Your task to perform on an android device: toggle notifications settings in the gmail app Image 0: 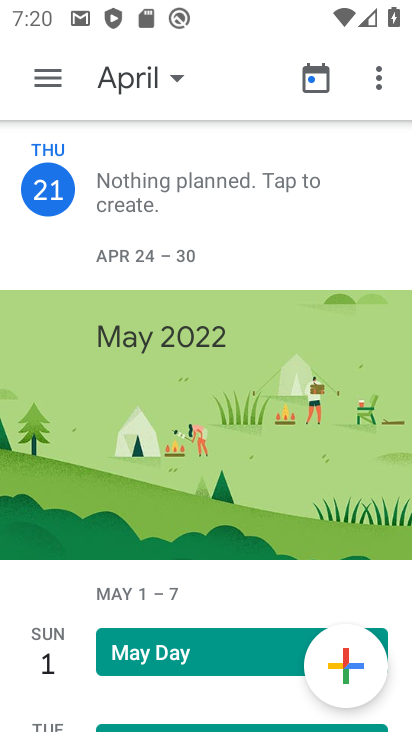
Step 0: press home button
Your task to perform on an android device: toggle notifications settings in the gmail app Image 1: 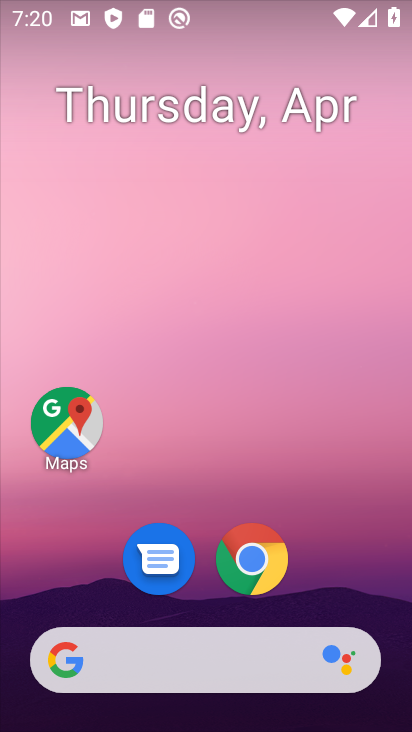
Step 1: drag from (267, 717) to (228, 91)
Your task to perform on an android device: toggle notifications settings in the gmail app Image 2: 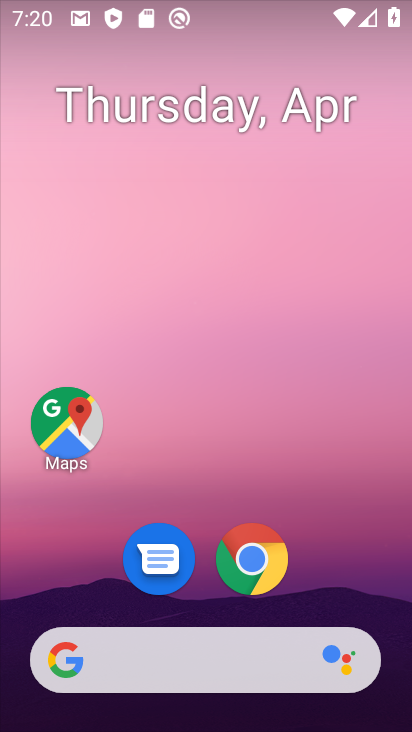
Step 2: drag from (263, 713) to (266, 34)
Your task to perform on an android device: toggle notifications settings in the gmail app Image 3: 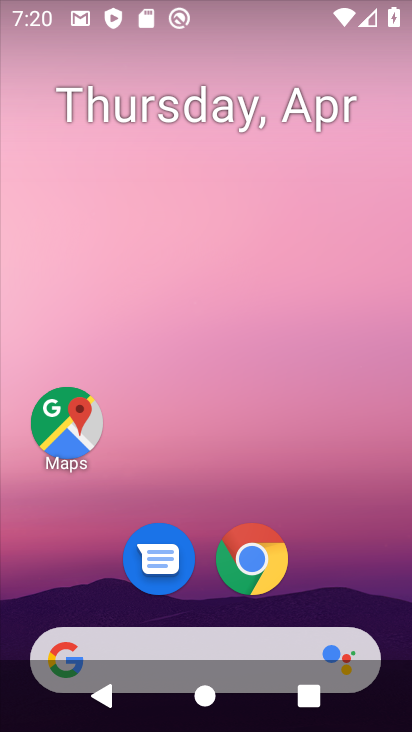
Step 3: drag from (222, 474) to (275, 10)
Your task to perform on an android device: toggle notifications settings in the gmail app Image 4: 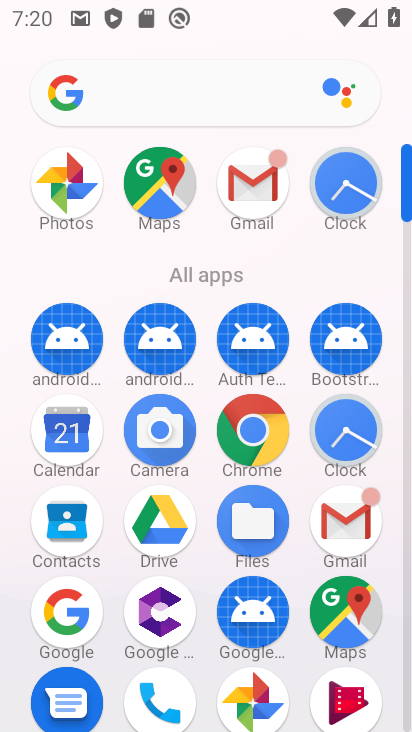
Step 4: click (226, 197)
Your task to perform on an android device: toggle notifications settings in the gmail app Image 5: 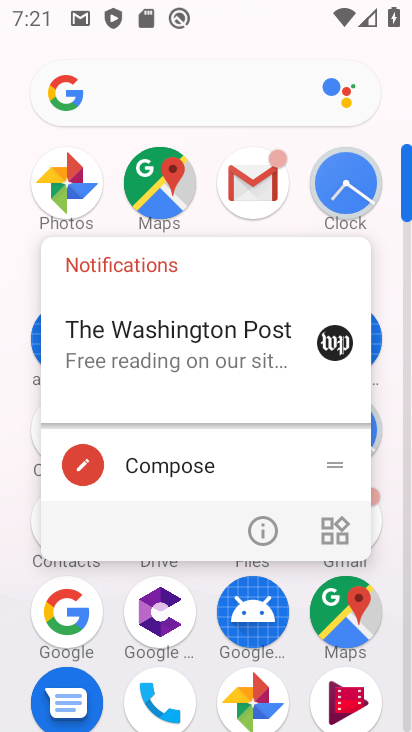
Step 5: click (256, 514)
Your task to perform on an android device: toggle notifications settings in the gmail app Image 6: 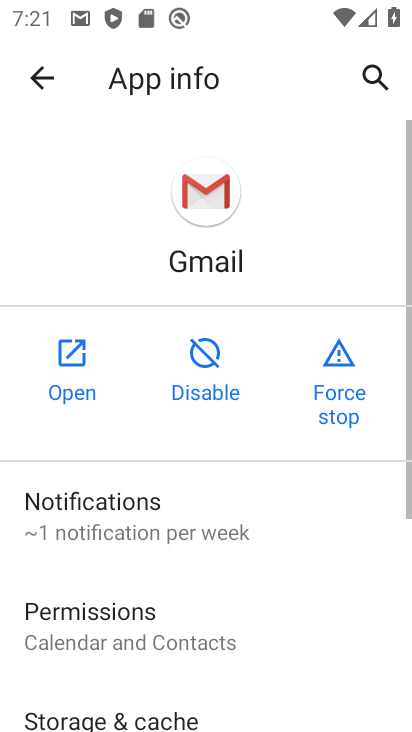
Step 6: click (107, 511)
Your task to perform on an android device: toggle notifications settings in the gmail app Image 7: 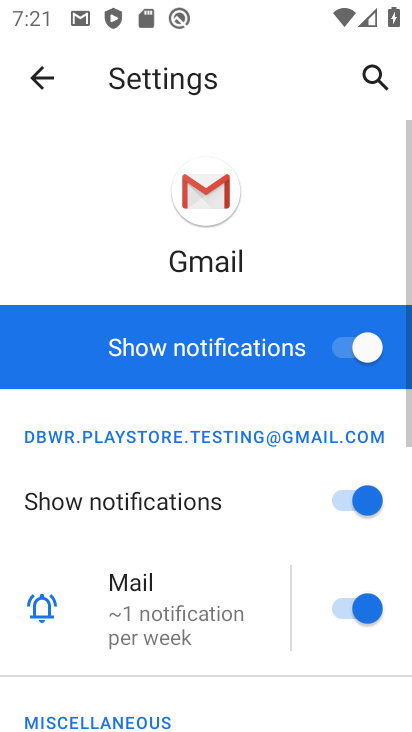
Step 7: click (357, 355)
Your task to perform on an android device: toggle notifications settings in the gmail app Image 8: 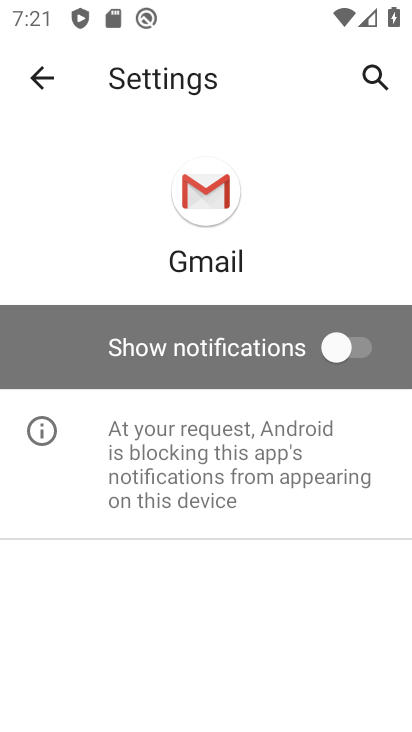
Step 8: task complete